Your task to perform on an android device: all mails in gmail Image 0: 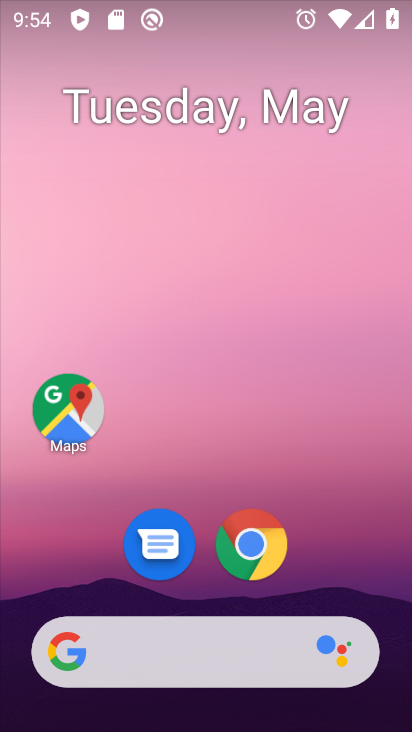
Step 0: drag from (347, 544) to (347, 206)
Your task to perform on an android device: all mails in gmail Image 1: 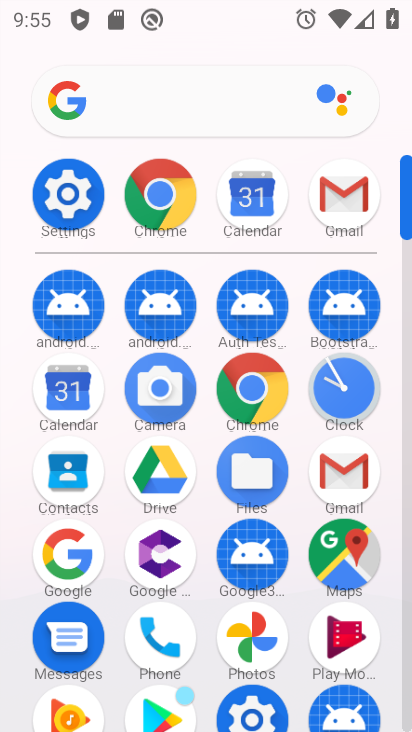
Step 1: click (351, 477)
Your task to perform on an android device: all mails in gmail Image 2: 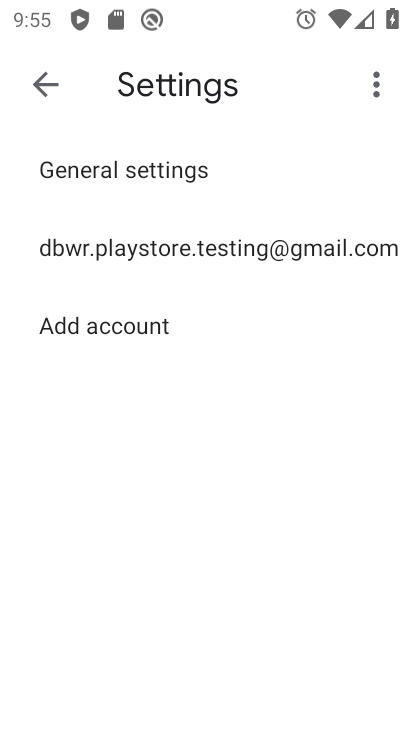
Step 2: click (20, 88)
Your task to perform on an android device: all mails in gmail Image 3: 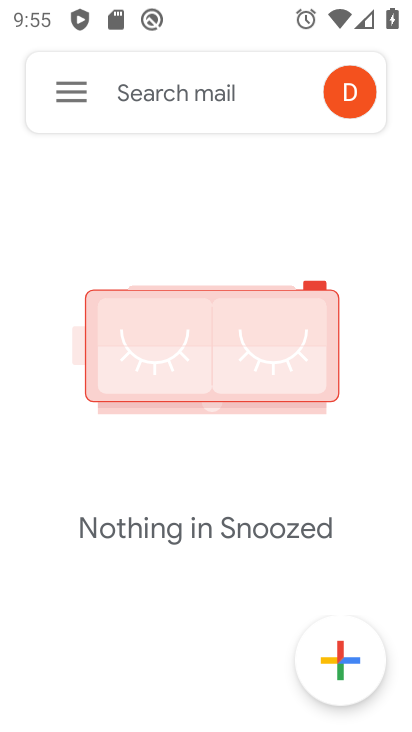
Step 3: click (91, 98)
Your task to perform on an android device: all mails in gmail Image 4: 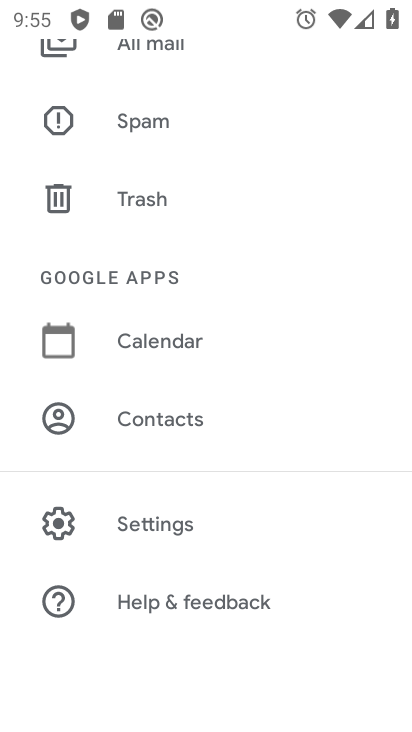
Step 4: drag from (198, 265) to (222, 416)
Your task to perform on an android device: all mails in gmail Image 5: 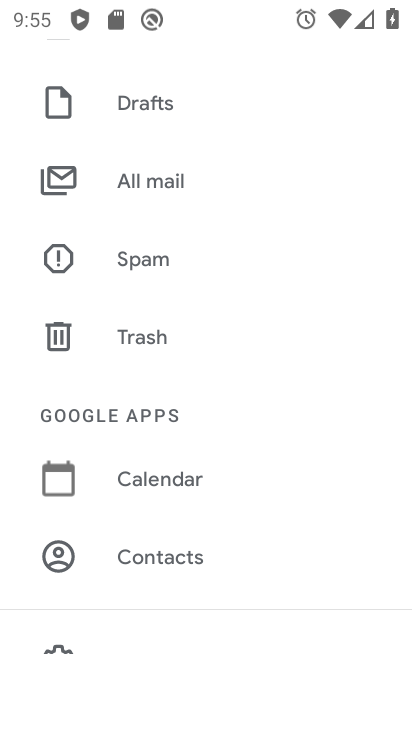
Step 5: click (182, 187)
Your task to perform on an android device: all mails in gmail Image 6: 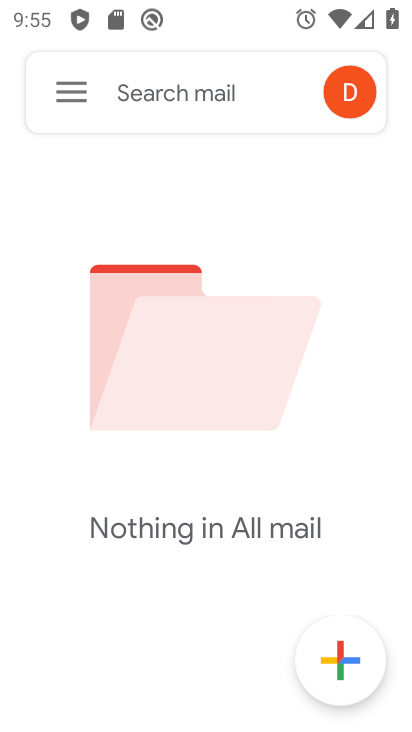
Step 6: task complete